Your task to perform on an android device: check out phone information Image 0: 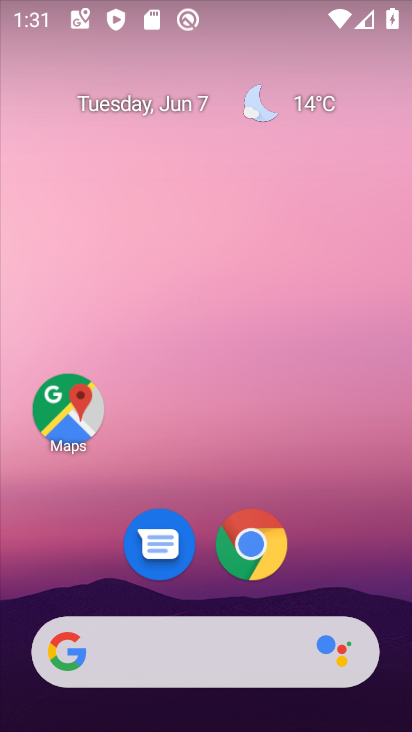
Step 0: drag from (373, 555) to (265, 226)
Your task to perform on an android device: check out phone information Image 1: 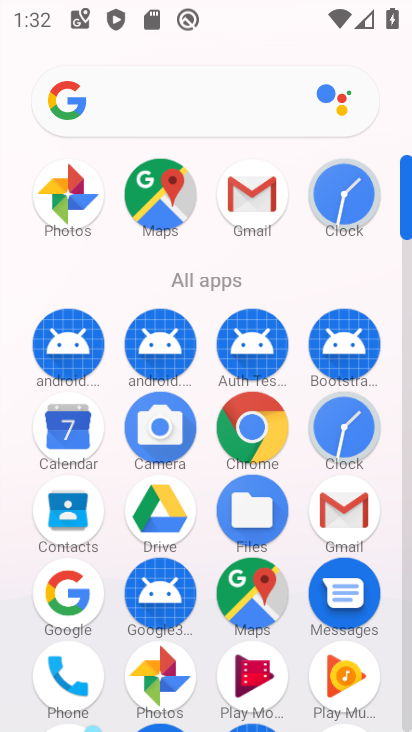
Step 1: click (410, 712)
Your task to perform on an android device: check out phone information Image 2: 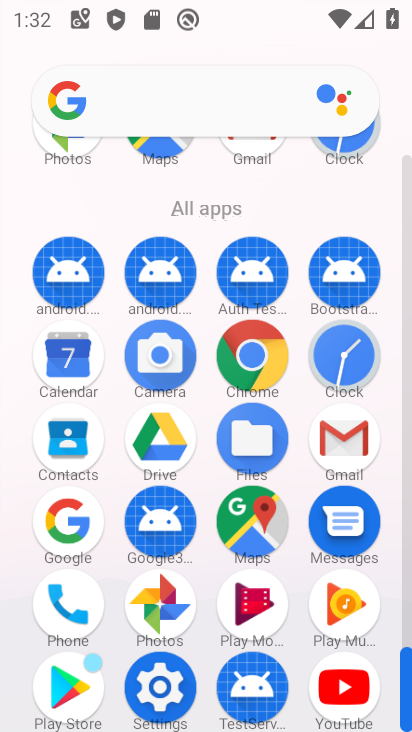
Step 2: click (146, 668)
Your task to perform on an android device: check out phone information Image 3: 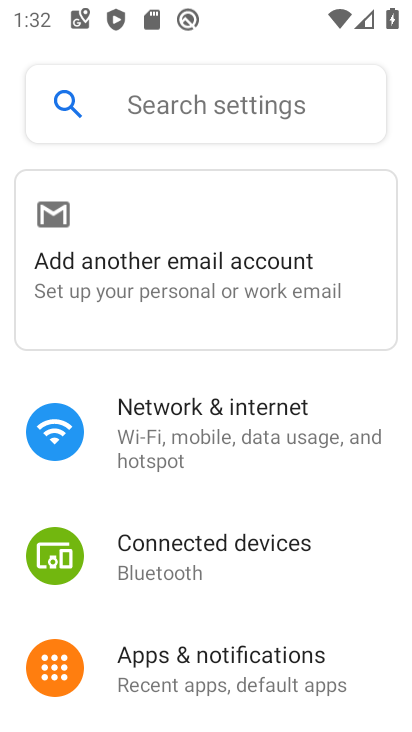
Step 3: drag from (221, 677) to (166, 1)
Your task to perform on an android device: check out phone information Image 4: 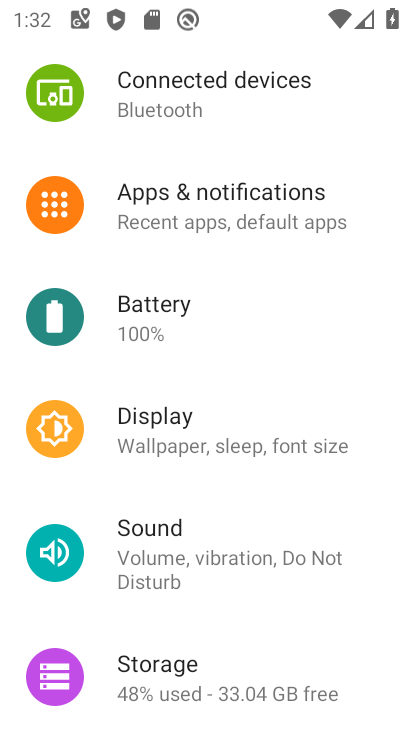
Step 4: drag from (172, 610) to (0, 149)
Your task to perform on an android device: check out phone information Image 5: 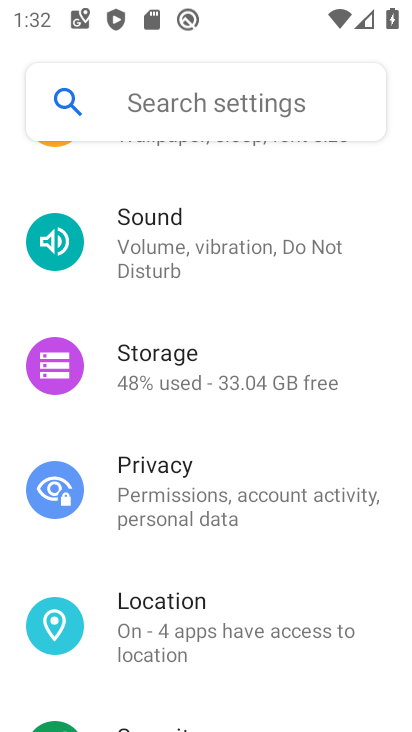
Step 5: drag from (300, 668) to (8, 437)
Your task to perform on an android device: check out phone information Image 6: 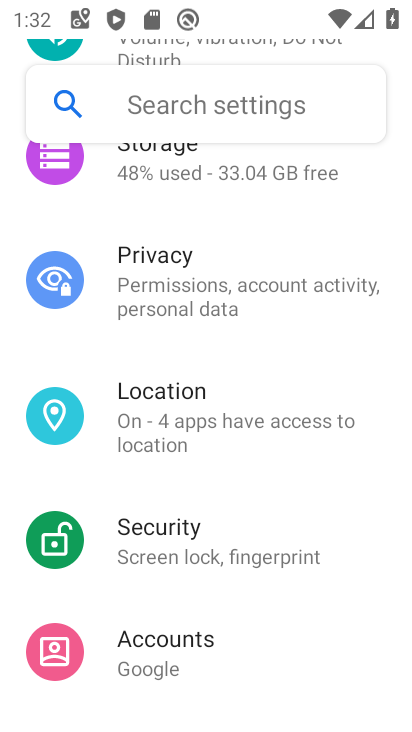
Step 6: drag from (234, 651) to (209, 9)
Your task to perform on an android device: check out phone information Image 7: 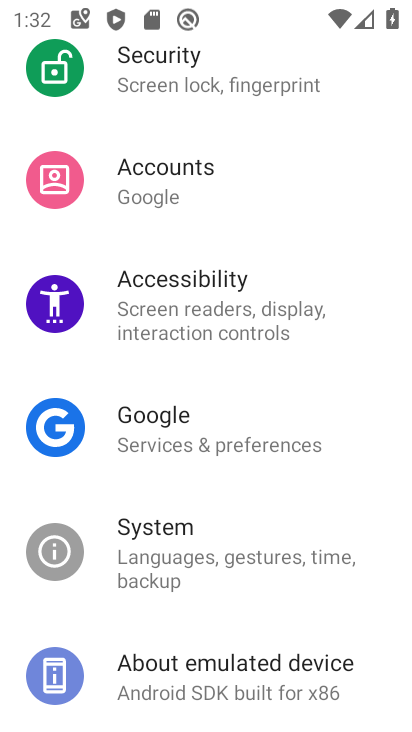
Step 7: click (252, 668)
Your task to perform on an android device: check out phone information Image 8: 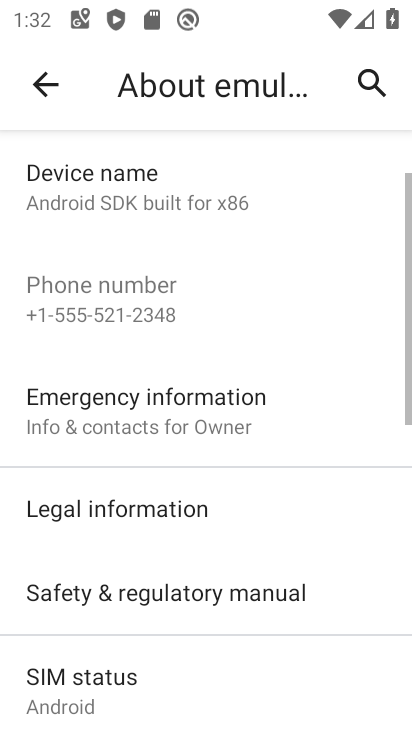
Step 8: task complete